Your task to perform on an android device: open device folders in google photos Image 0: 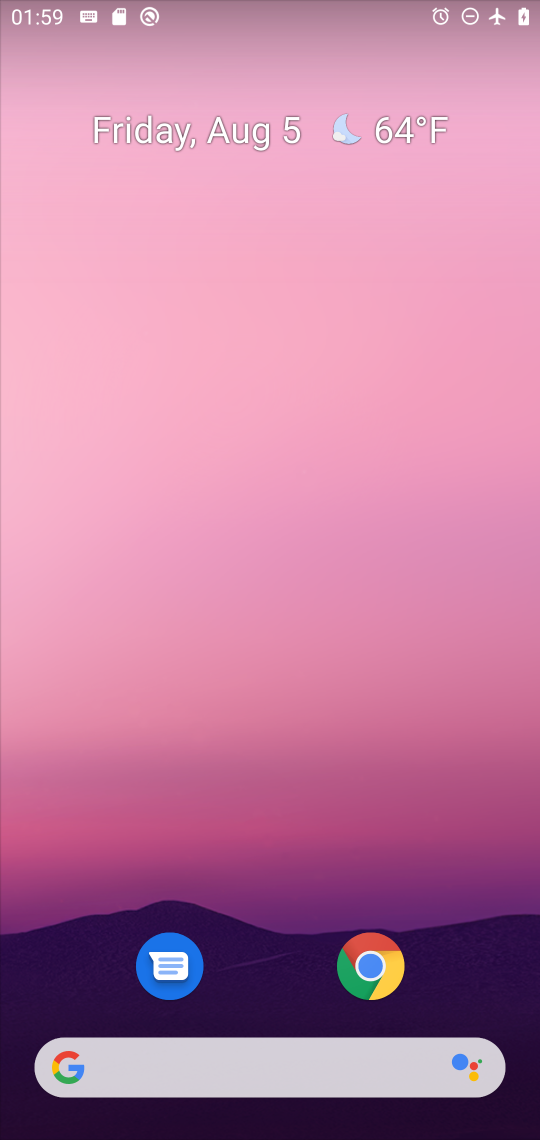
Step 0: drag from (301, 935) to (376, 54)
Your task to perform on an android device: open device folders in google photos Image 1: 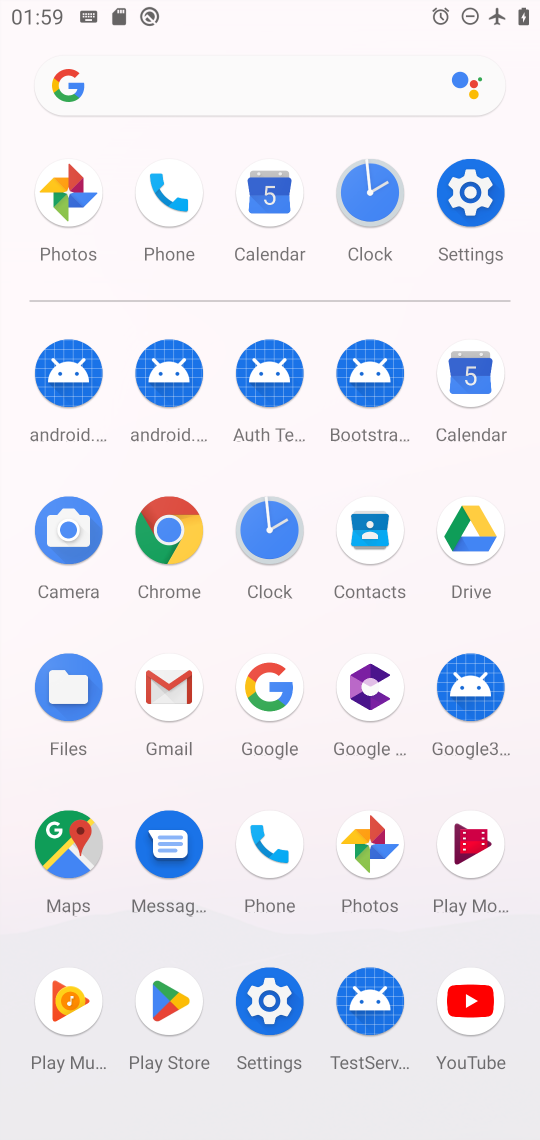
Step 1: click (74, 180)
Your task to perform on an android device: open device folders in google photos Image 2: 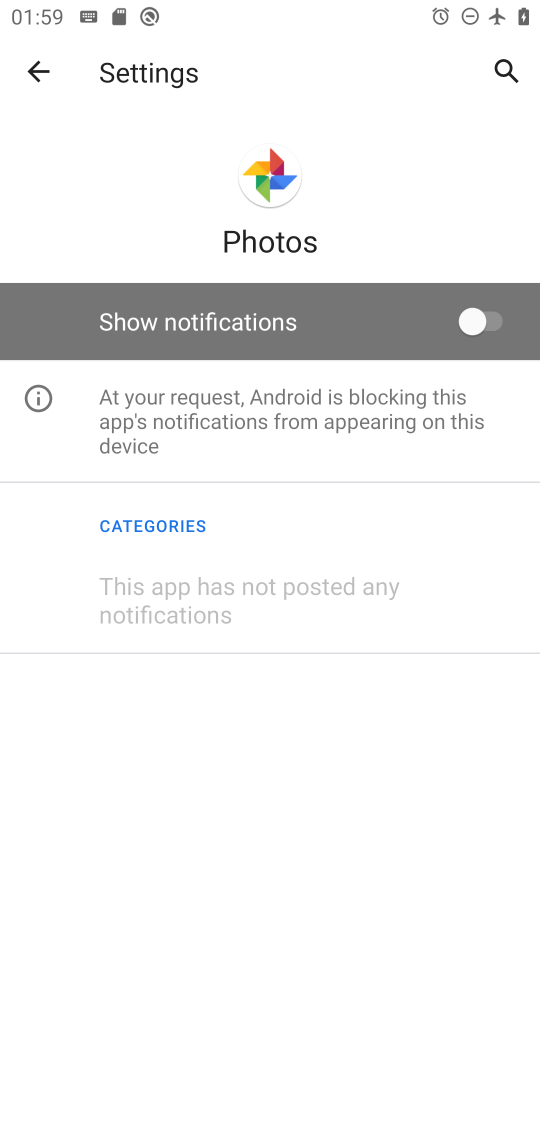
Step 2: click (40, 73)
Your task to perform on an android device: open device folders in google photos Image 3: 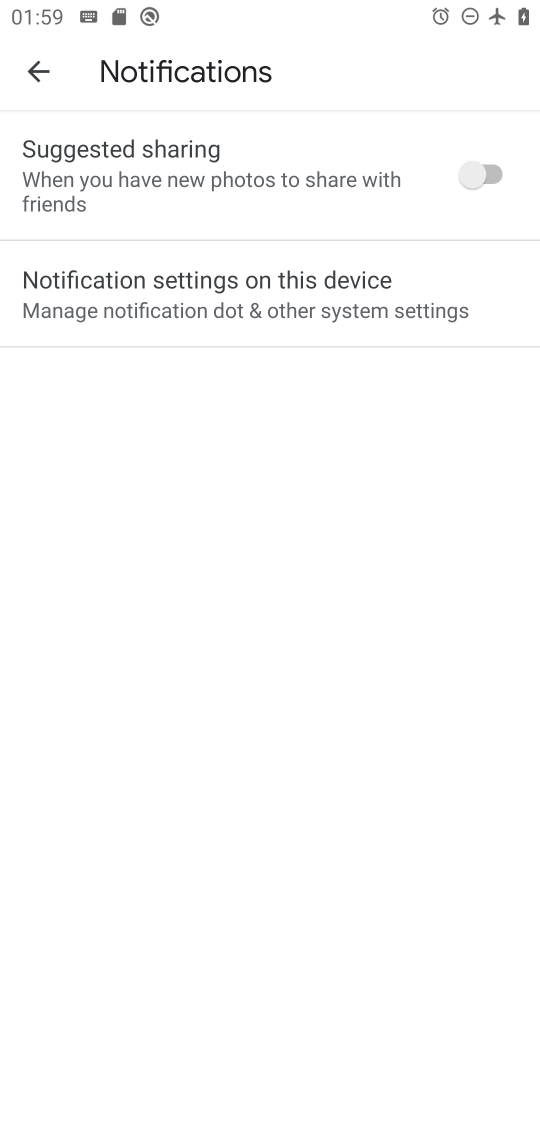
Step 3: click (40, 69)
Your task to perform on an android device: open device folders in google photos Image 4: 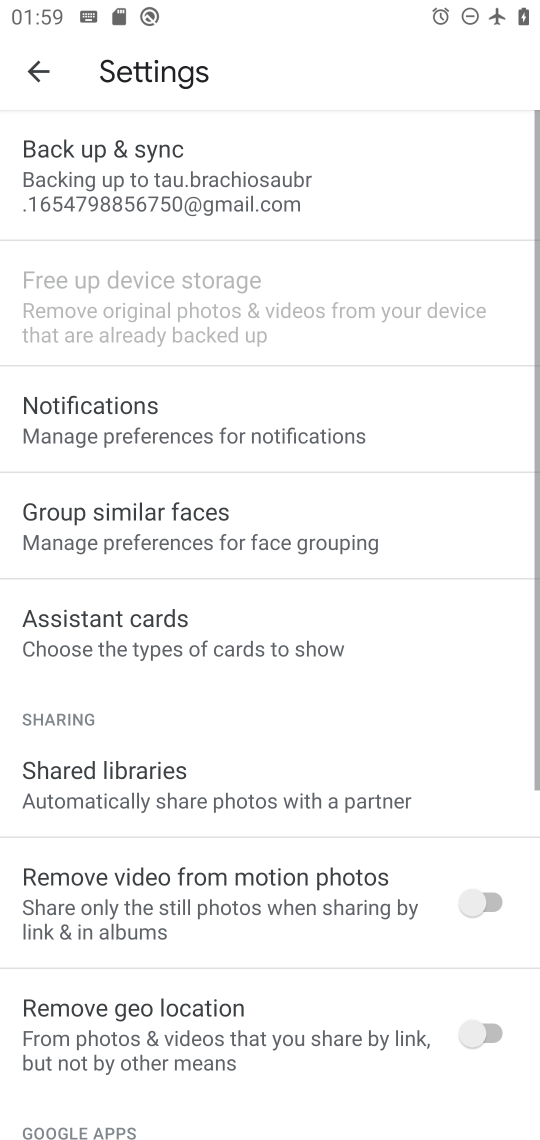
Step 4: click (40, 69)
Your task to perform on an android device: open device folders in google photos Image 5: 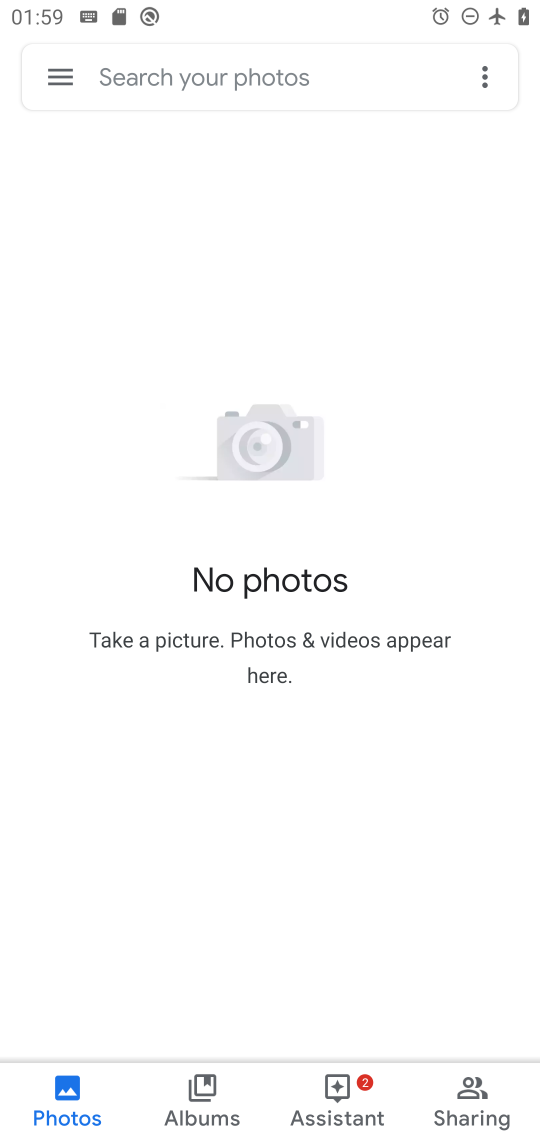
Step 5: click (49, 64)
Your task to perform on an android device: open device folders in google photos Image 6: 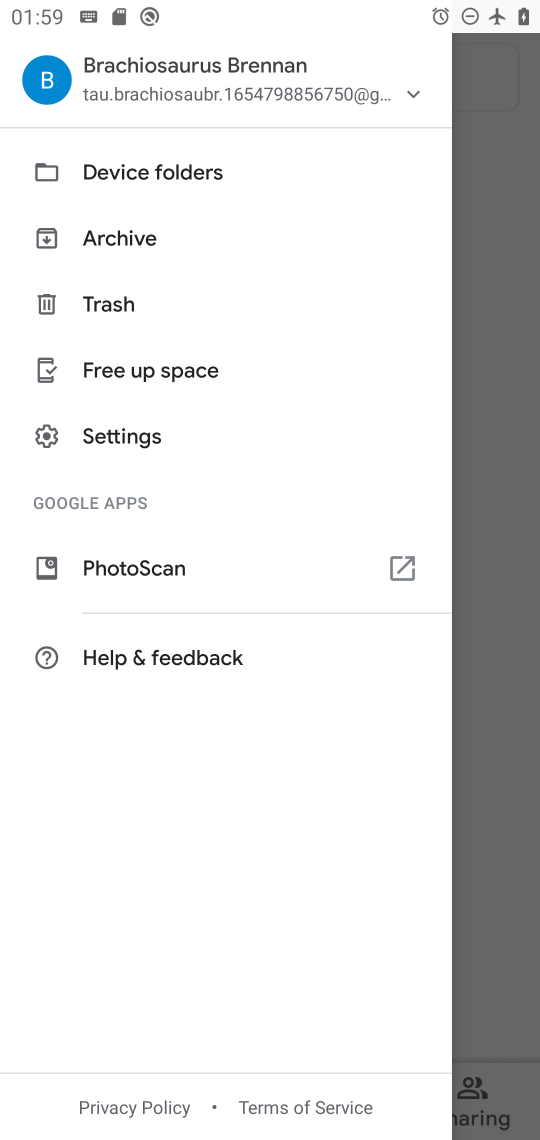
Step 6: click (121, 176)
Your task to perform on an android device: open device folders in google photos Image 7: 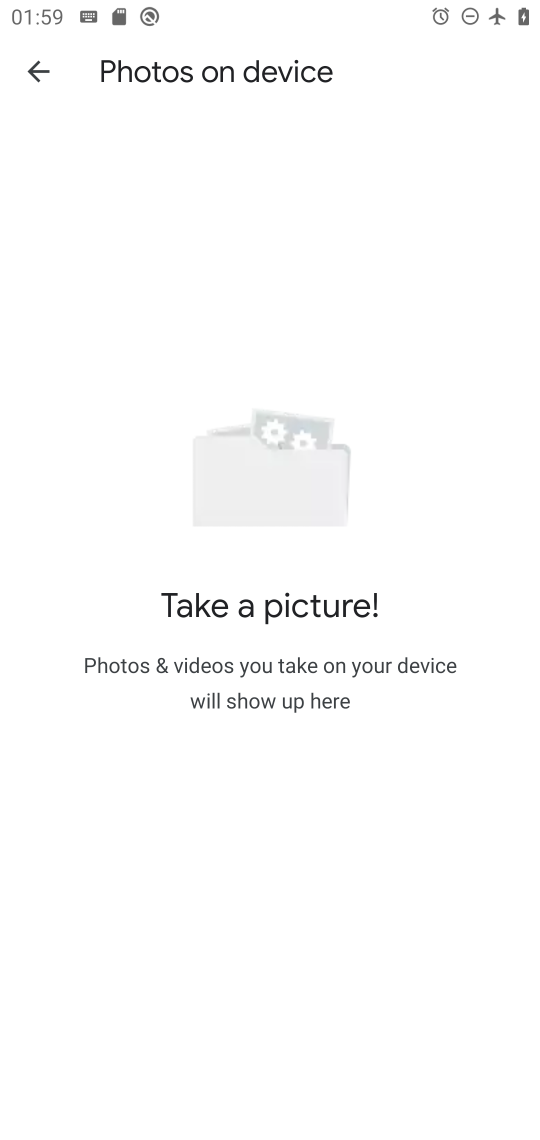
Step 7: task complete